Your task to perform on an android device: open chrome privacy settings Image 0: 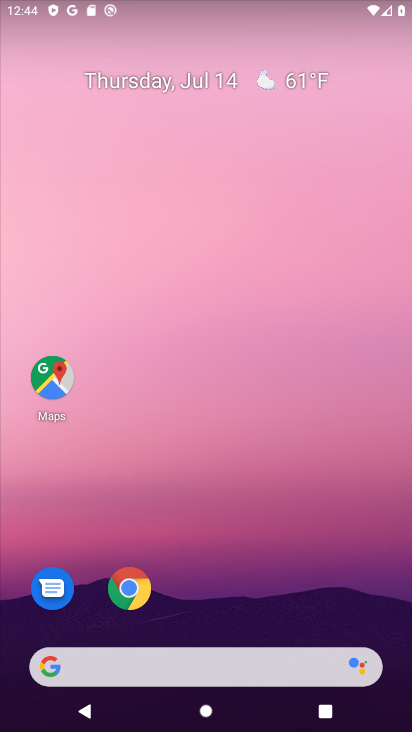
Step 0: drag from (216, 610) to (202, 55)
Your task to perform on an android device: open chrome privacy settings Image 1: 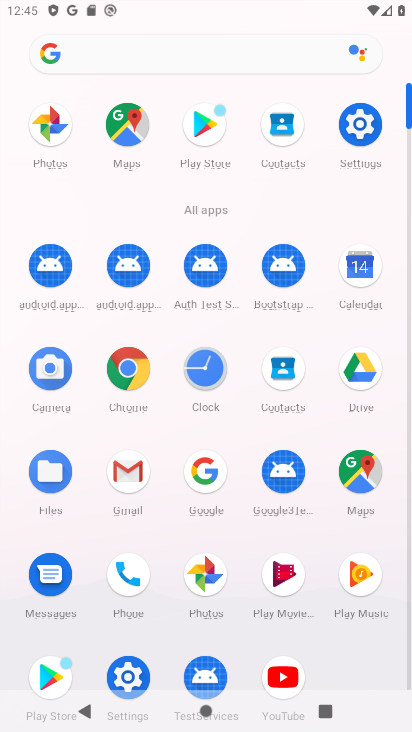
Step 1: click (128, 379)
Your task to perform on an android device: open chrome privacy settings Image 2: 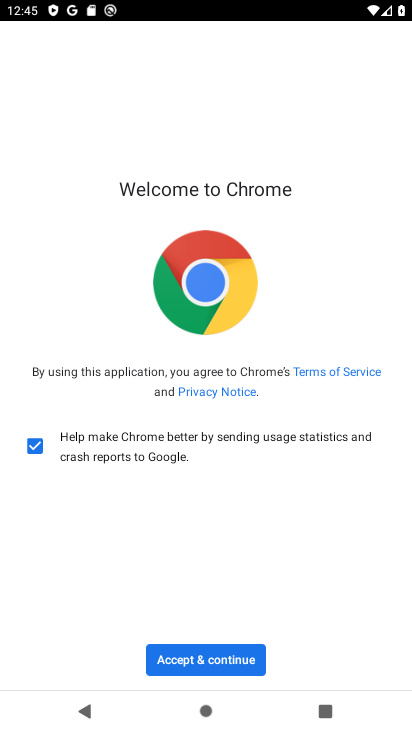
Step 2: click (226, 661)
Your task to perform on an android device: open chrome privacy settings Image 3: 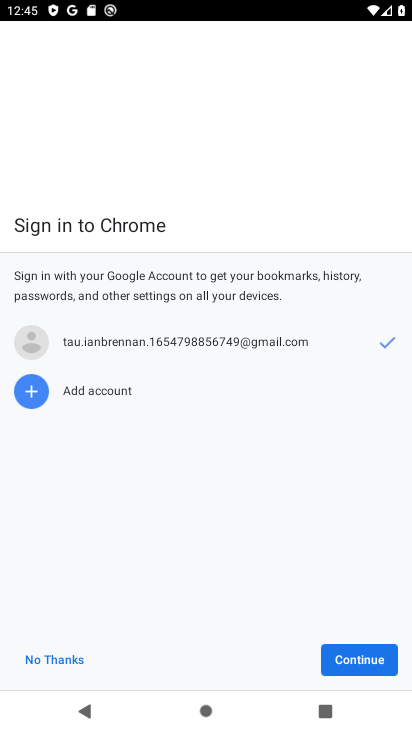
Step 3: click (381, 654)
Your task to perform on an android device: open chrome privacy settings Image 4: 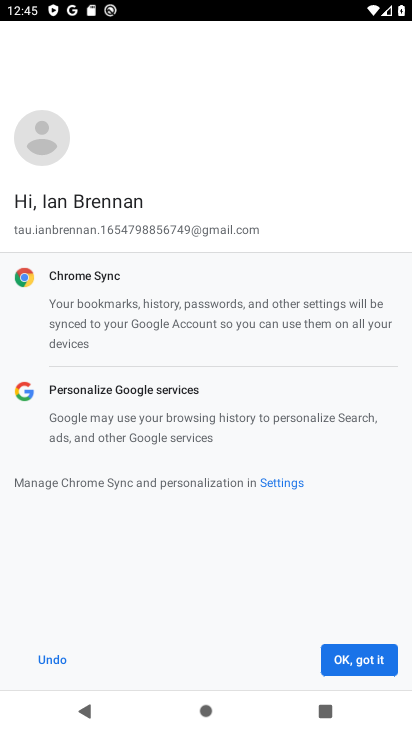
Step 4: click (355, 662)
Your task to perform on an android device: open chrome privacy settings Image 5: 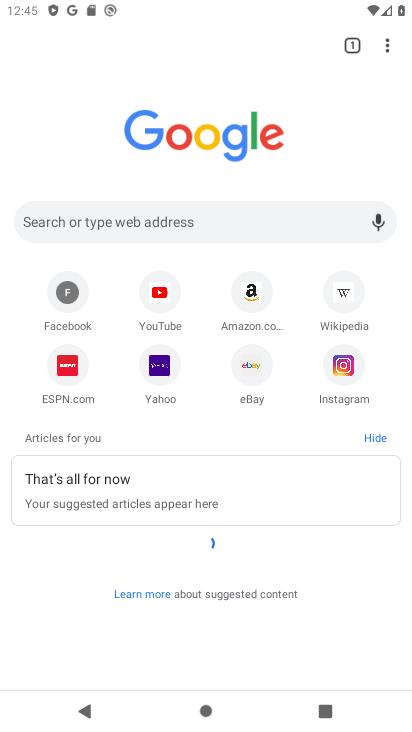
Step 5: click (385, 50)
Your task to perform on an android device: open chrome privacy settings Image 6: 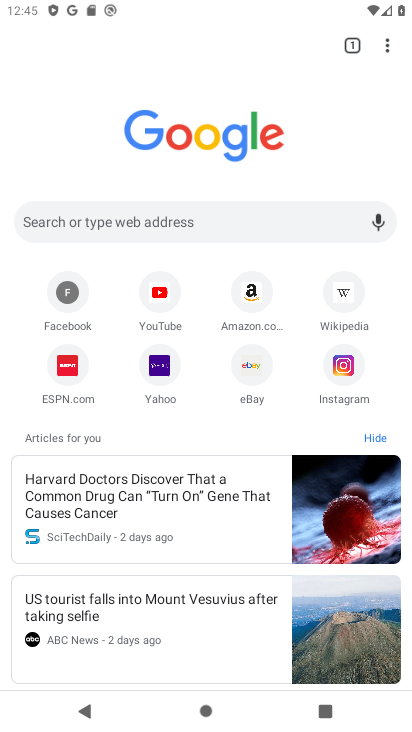
Step 6: click (385, 49)
Your task to perform on an android device: open chrome privacy settings Image 7: 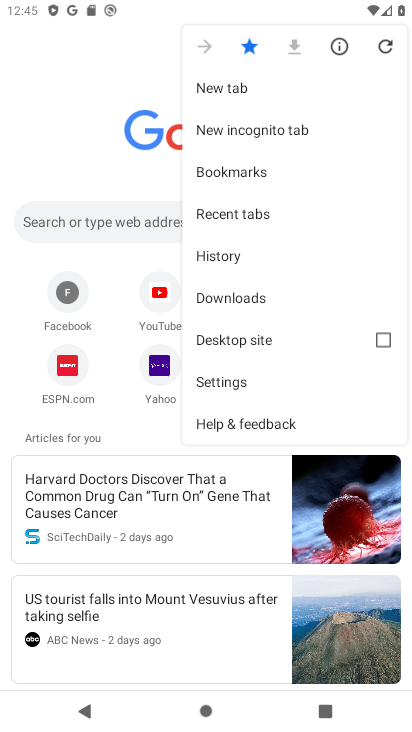
Step 7: click (252, 387)
Your task to perform on an android device: open chrome privacy settings Image 8: 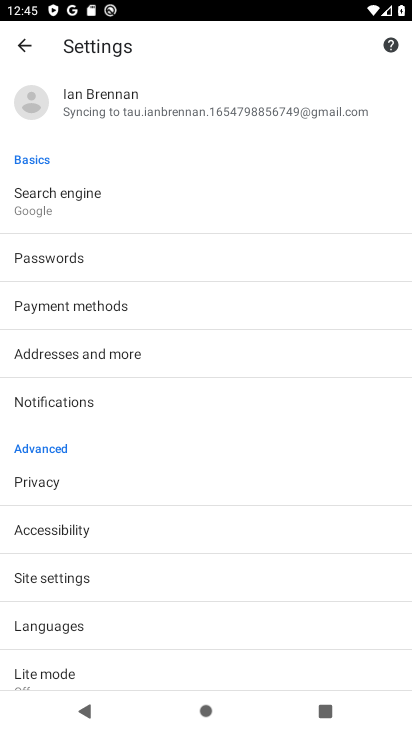
Step 8: click (77, 479)
Your task to perform on an android device: open chrome privacy settings Image 9: 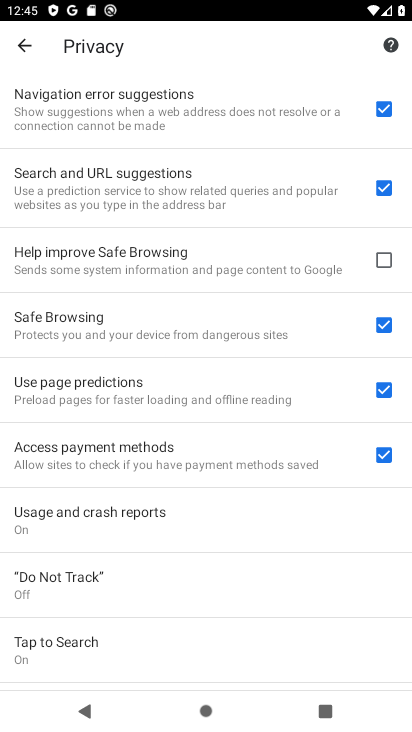
Step 9: task complete